Your task to perform on an android device: Open Reddit.com Image 0: 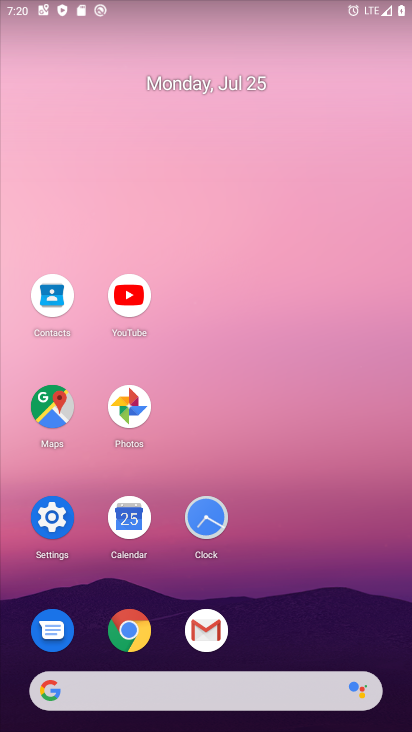
Step 0: click (127, 632)
Your task to perform on an android device: Open Reddit.com Image 1: 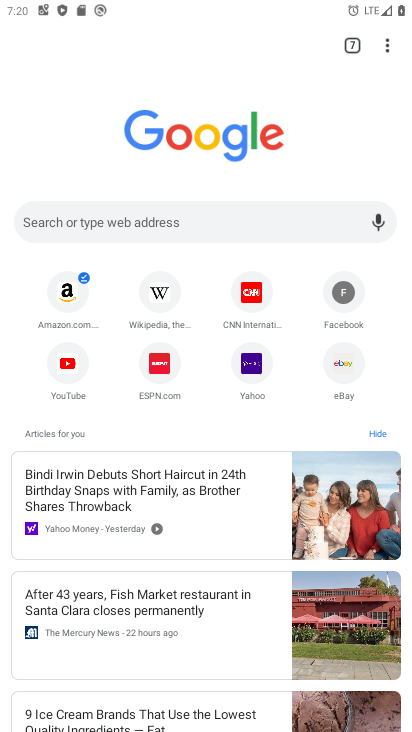
Step 1: click (149, 208)
Your task to perform on an android device: Open Reddit.com Image 2: 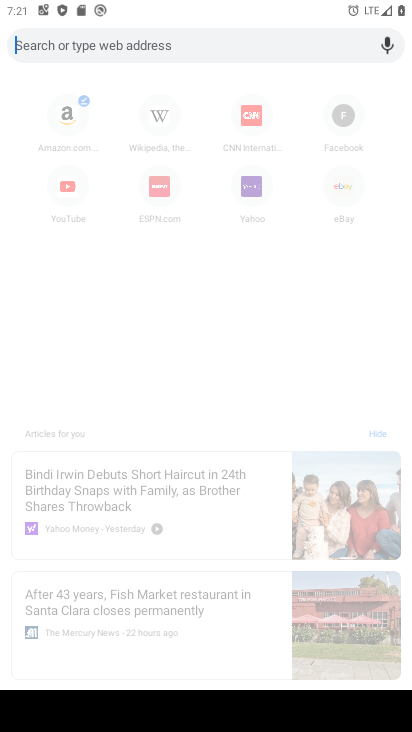
Step 2: type "reddit.com"
Your task to perform on an android device: Open Reddit.com Image 3: 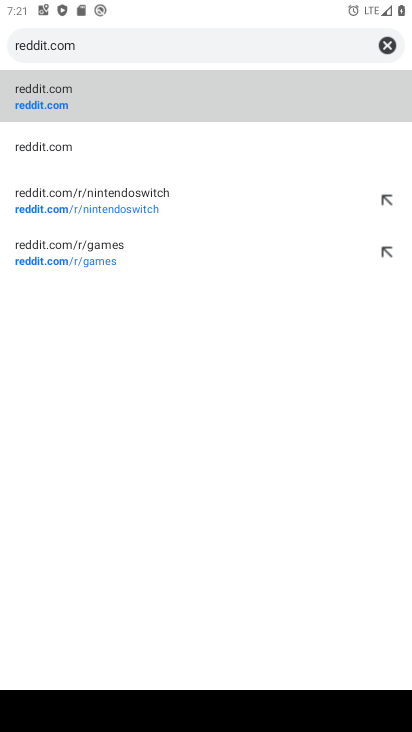
Step 3: click (46, 96)
Your task to perform on an android device: Open Reddit.com Image 4: 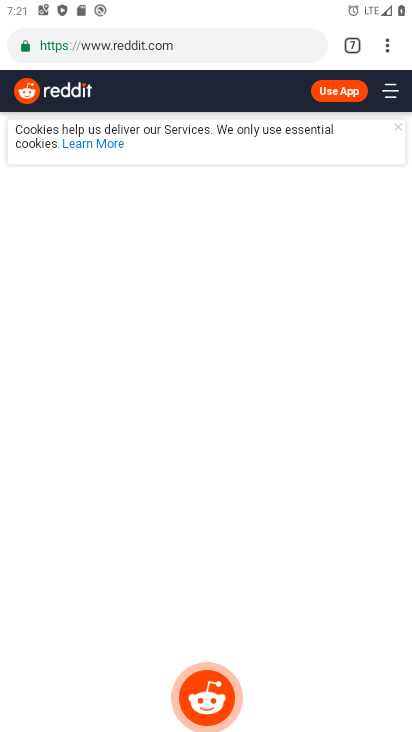
Step 4: task complete